Your task to perform on an android device: turn on airplane mode Image 0: 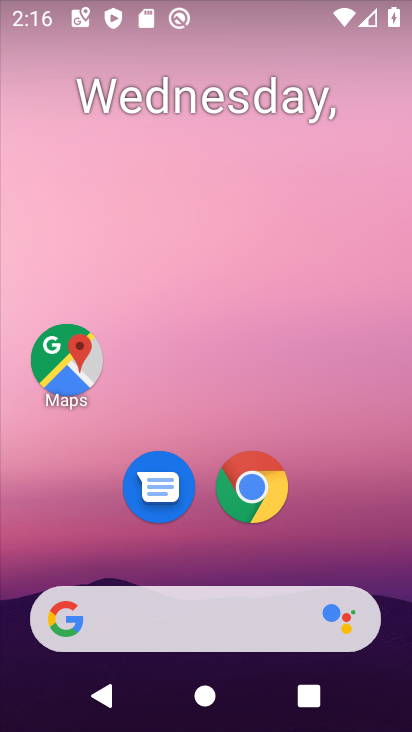
Step 0: click (412, 88)
Your task to perform on an android device: turn on airplane mode Image 1: 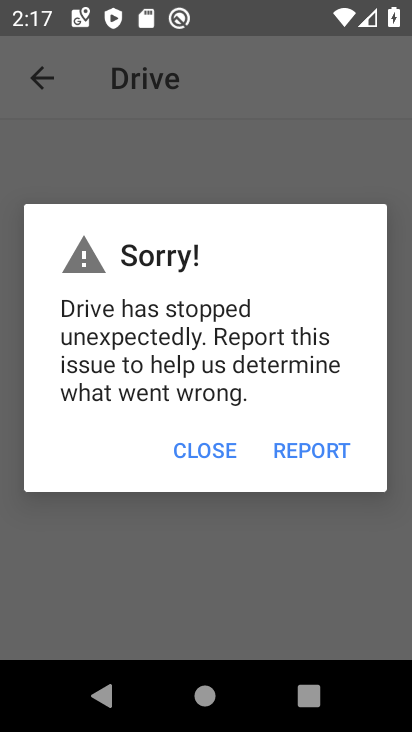
Step 1: press home button
Your task to perform on an android device: turn on airplane mode Image 2: 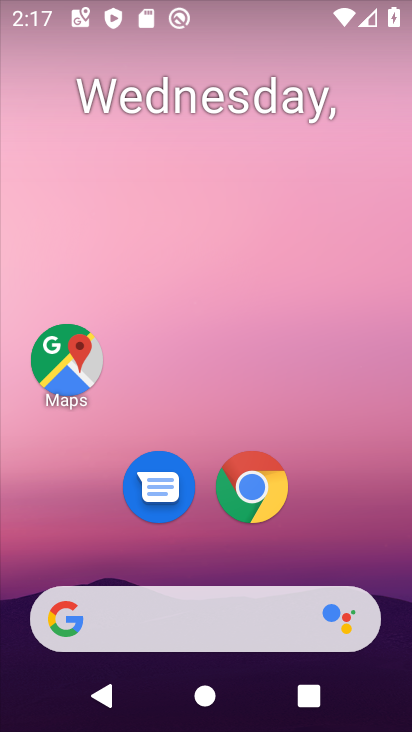
Step 2: drag from (370, 546) to (407, 121)
Your task to perform on an android device: turn on airplane mode Image 3: 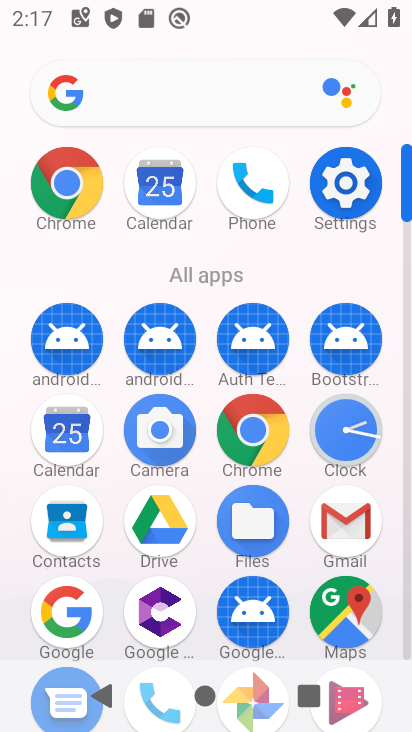
Step 3: click (352, 213)
Your task to perform on an android device: turn on airplane mode Image 4: 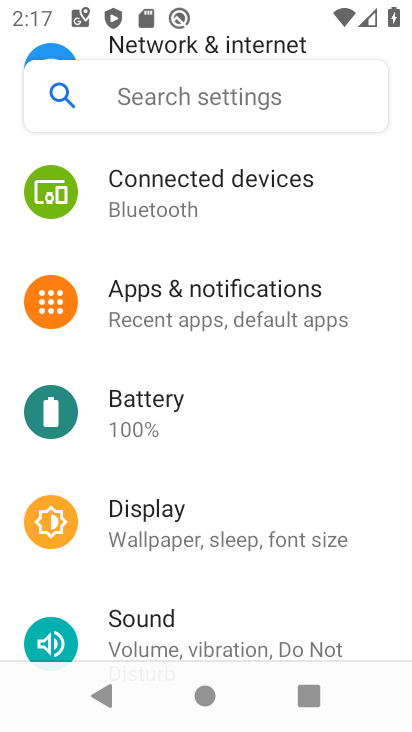
Step 4: drag from (250, 359) to (209, 728)
Your task to perform on an android device: turn on airplane mode Image 5: 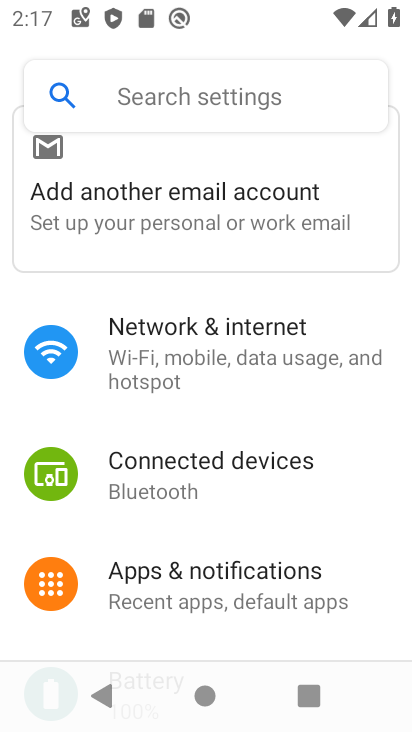
Step 5: click (195, 352)
Your task to perform on an android device: turn on airplane mode Image 6: 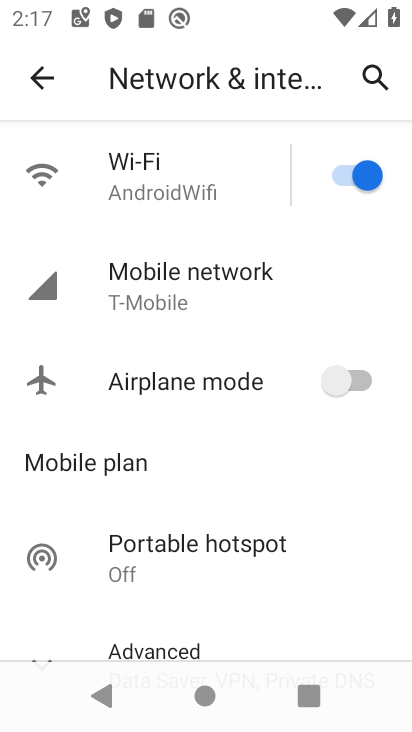
Step 6: click (323, 386)
Your task to perform on an android device: turn on airplane mode Image 7: 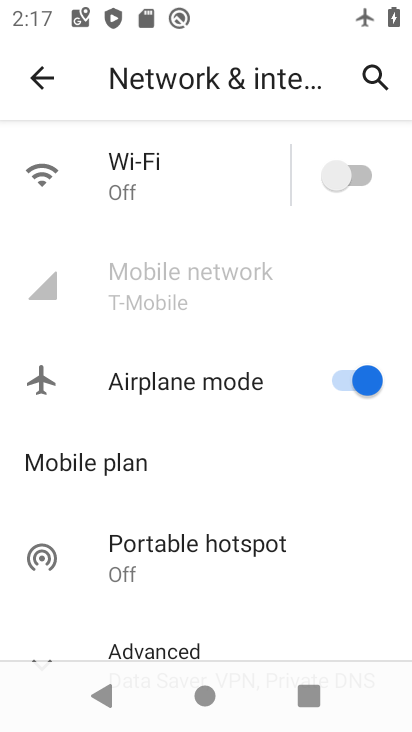
Step 7: task complete